Your task to perform on an android device: empty trash in the gmail app Image 0: 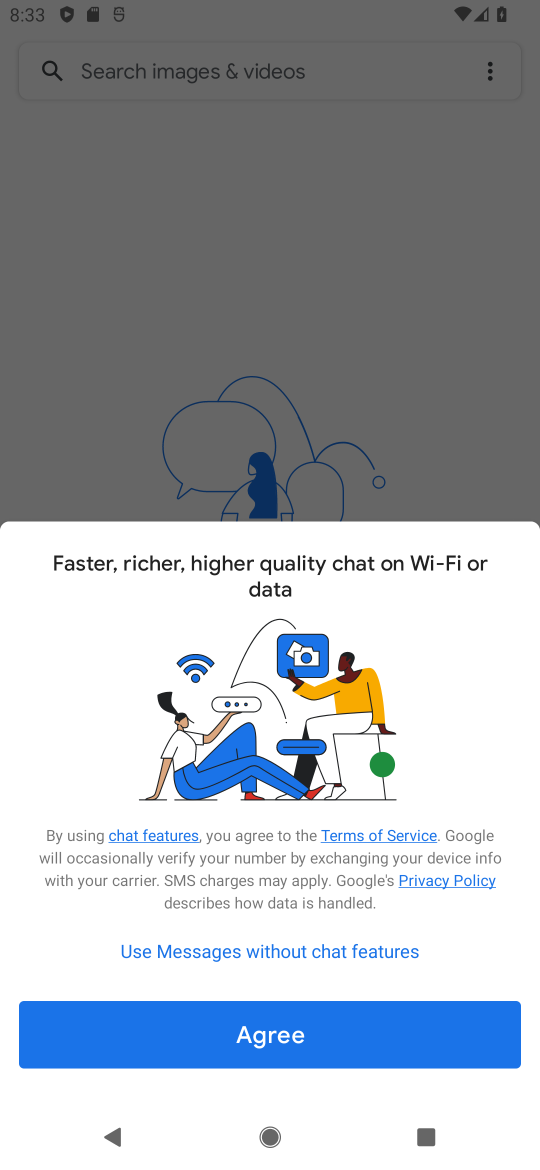
Step 0: press back button
Your task to perform on an android device: empty trash in the gmail app Image 1: 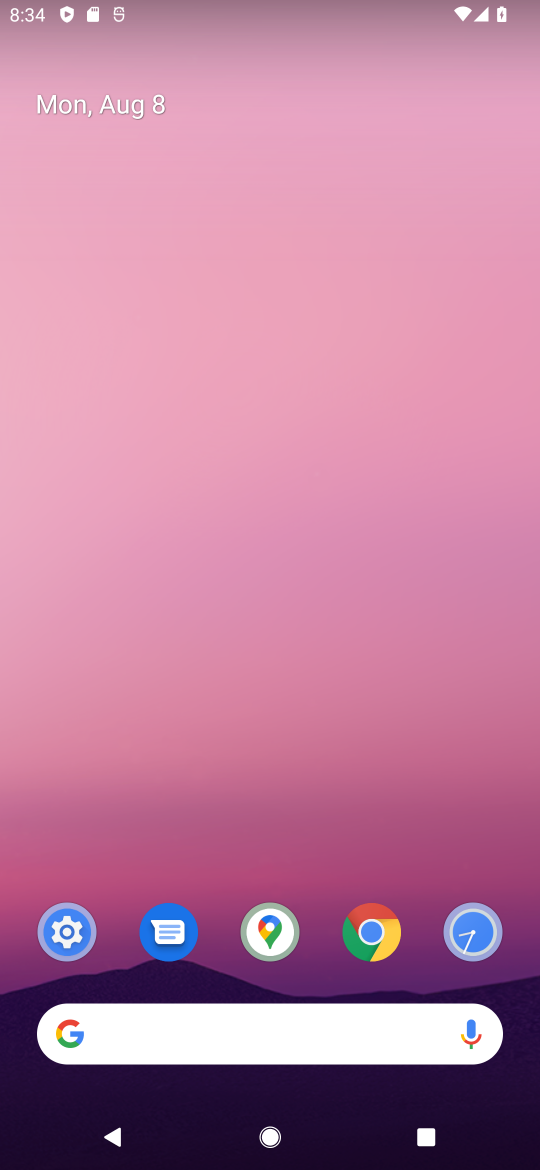
Step 1: drag from (250, 704) to (338, 65)
Your task to perform on an android device: empty trash in the gmail app Image 2: 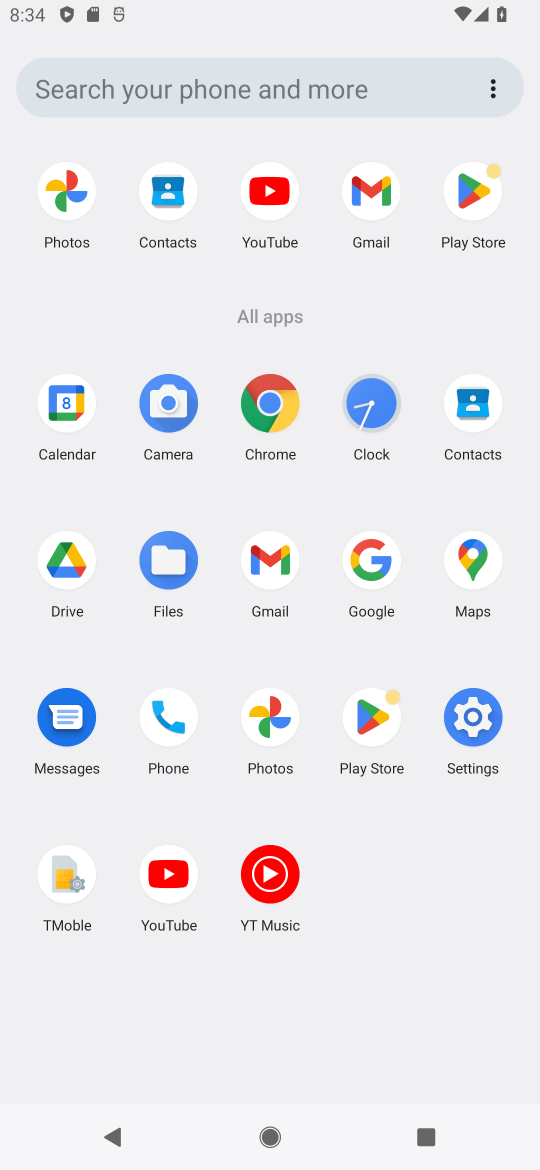
Step 2: click (362, 194)
Your task to perform on an android device: empty trash in the gmail app Image 3: 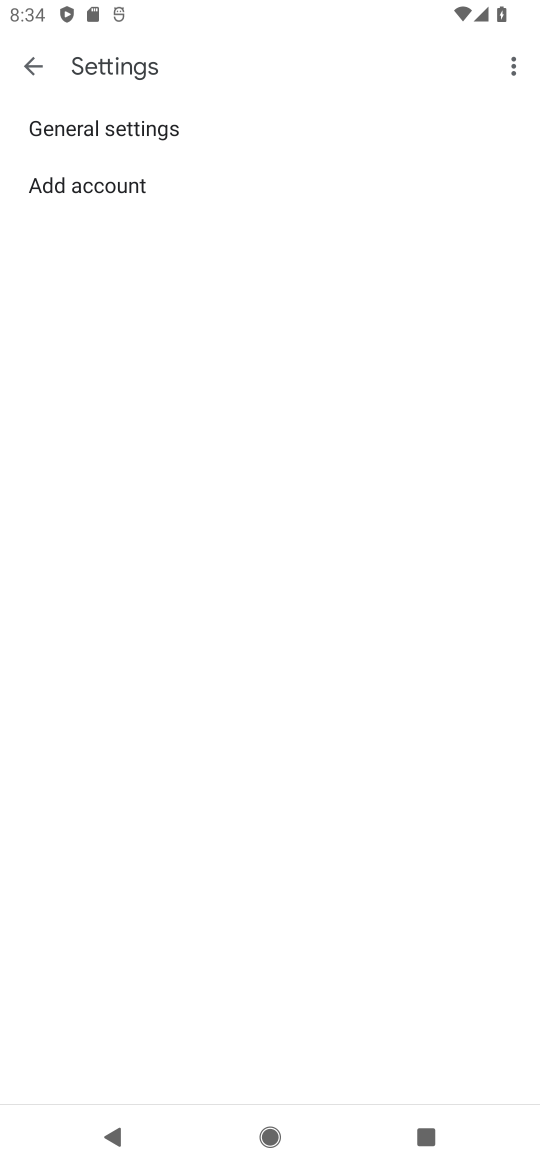
Step 3: click (42, 60)
Your task to perform on an android device: empty trash in the gmail app Image 4: 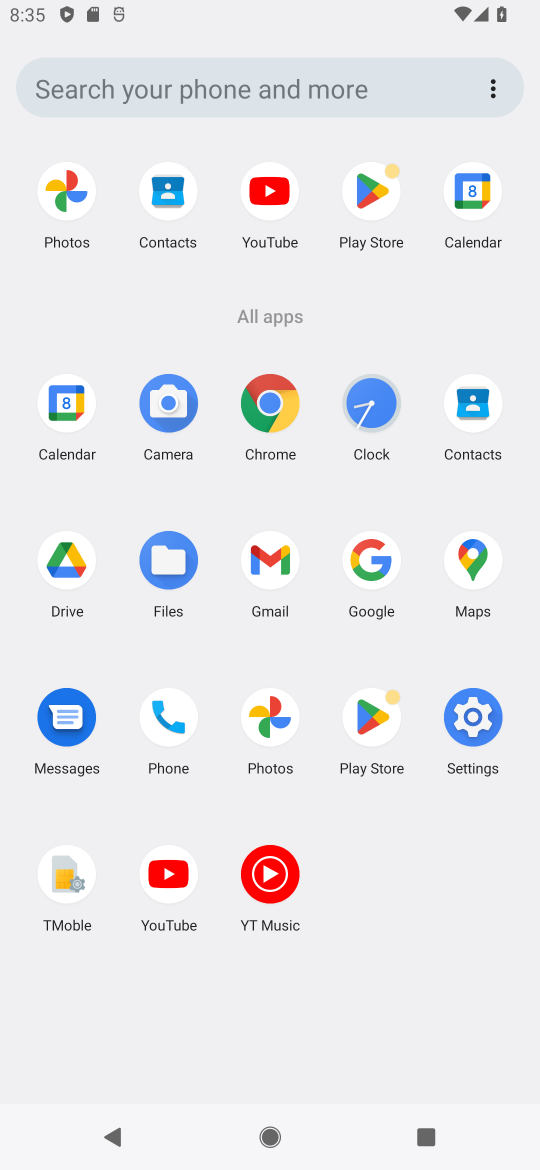
Step 4: click (277, 563)
Your task to perform on an android device: empty trash in the gmail app Image 5: 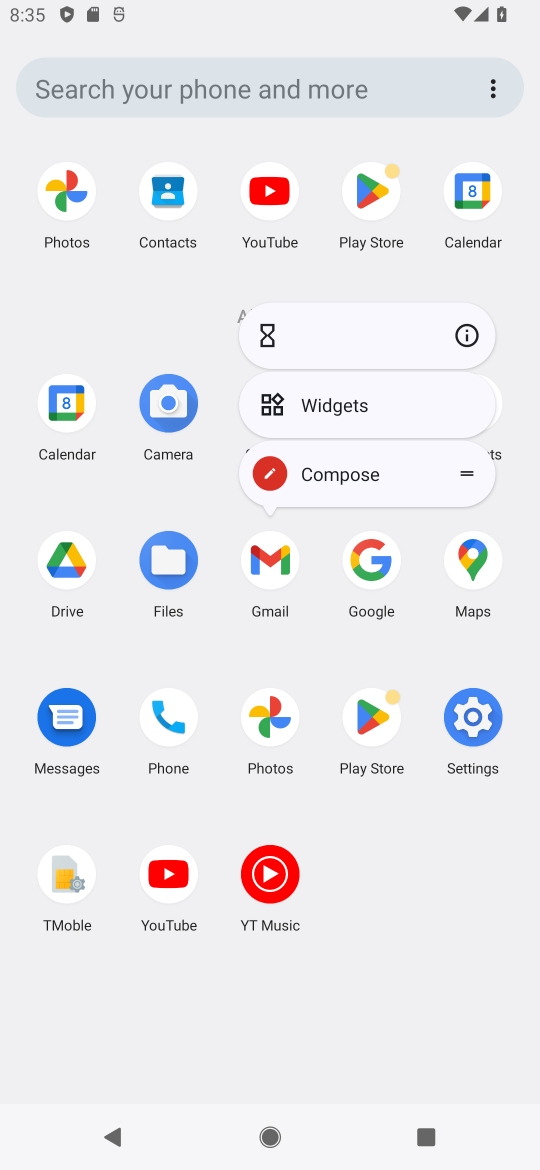
Step 5: click (274, 562)
Your task to perform on an android device: empty trash in the gmail app Image 6: 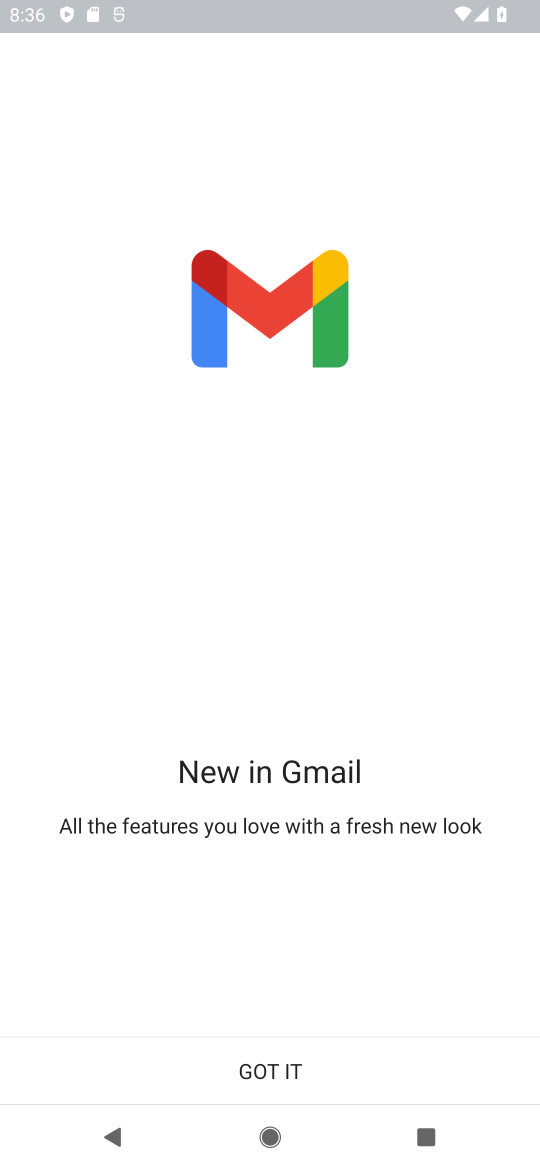
Step 6: click (260, 1058)
Your task to perform on an android device: empty trash in the gmail app Image 7: 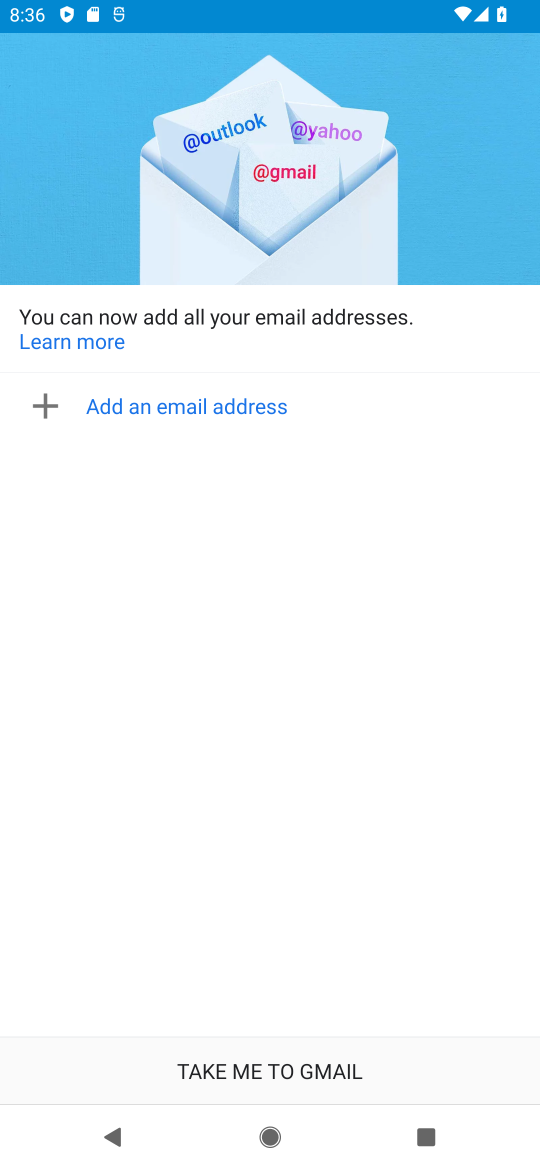
Step 7: task complete